Your task to perform on an android device: set the stopwatch Image 0: 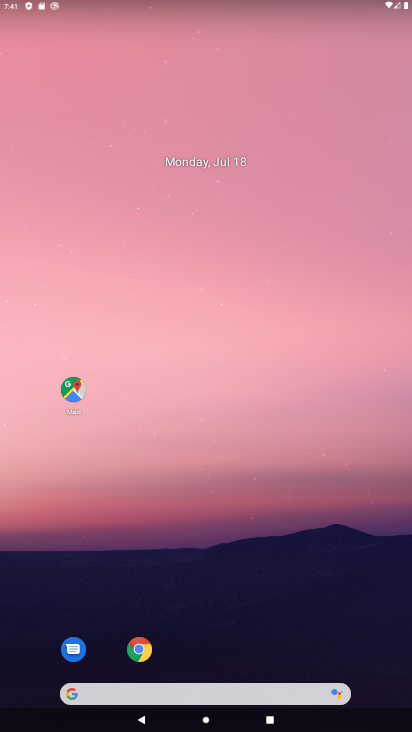
Step 0: drag from (335, 455) to (215, 14)
Your task to perform on an android device: set the stopwatch Image 1: 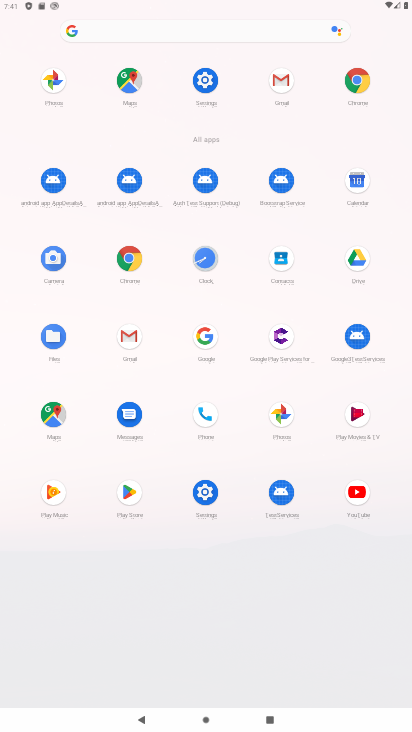
Step 1: click (203, 256)
Your task to perform on an android device: set the stopwatch Image 2: 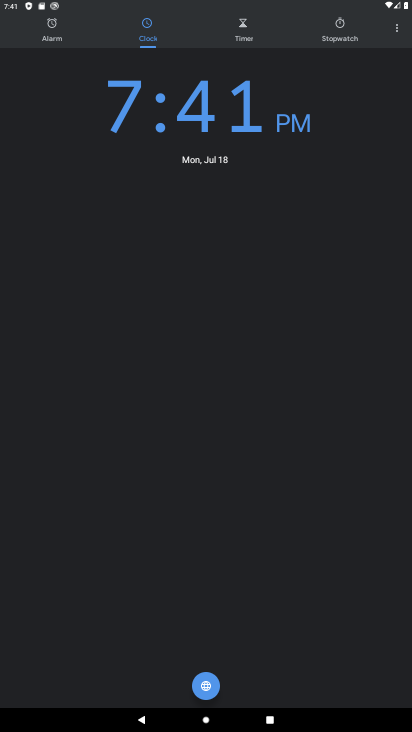
Step 2: click (326, 35)
Your task to perform on an android device: set the stopwatch Image 3: 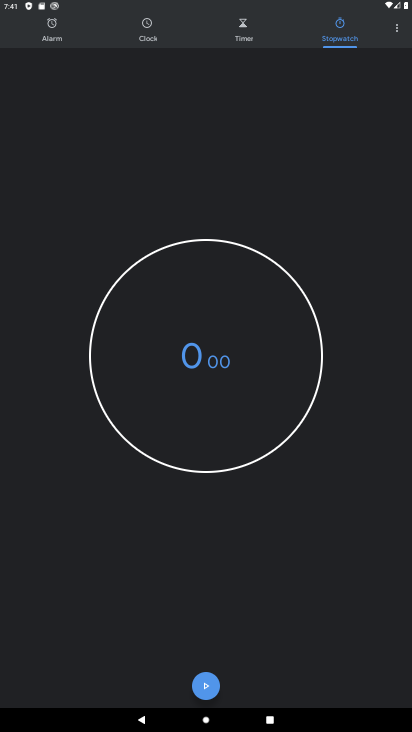
Step 3: click (206, 686)
Your task to perform on an android device: set the stopwatch Image 4: 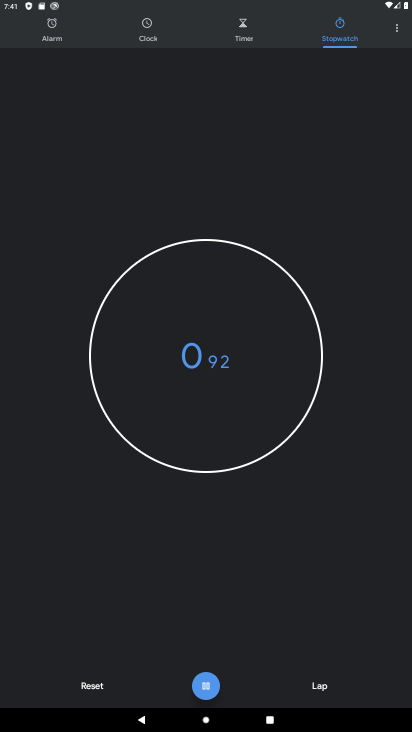
Step 4: click (206, 686)
Your task to perform on an android device: set the stopwatch Image 5: 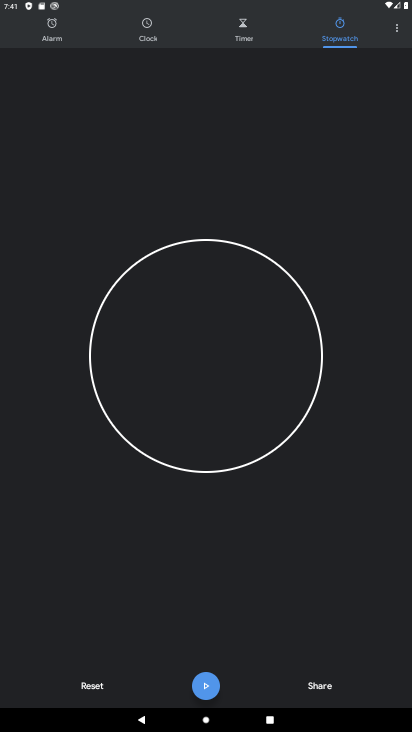
Step 5: task complete